Your task to perform on an android device: open a bookmark in the chrome app Image 0: 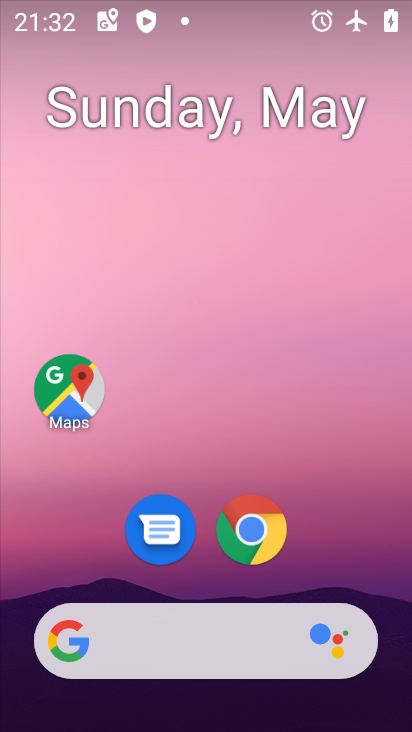
Step 0: click (255, 533)
Your task to perform on an android device: open a bookmark in the chrome app Image 1: 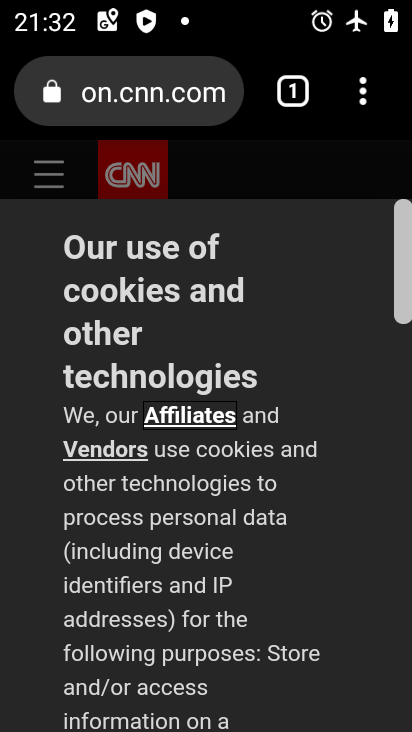
Step 1: click (362, 95)
Your task to perform on an android device: open a bookmark in the chrome app Image 2: 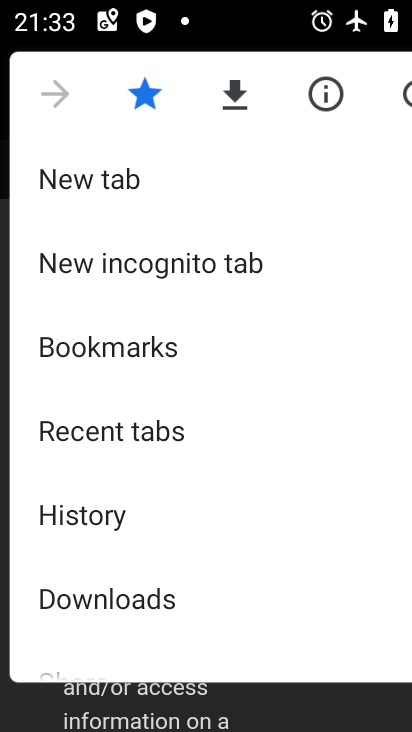
Step 2: click (87, 353)
Your task to perform on an android device: open a bookmark in the chrome app Image 3: 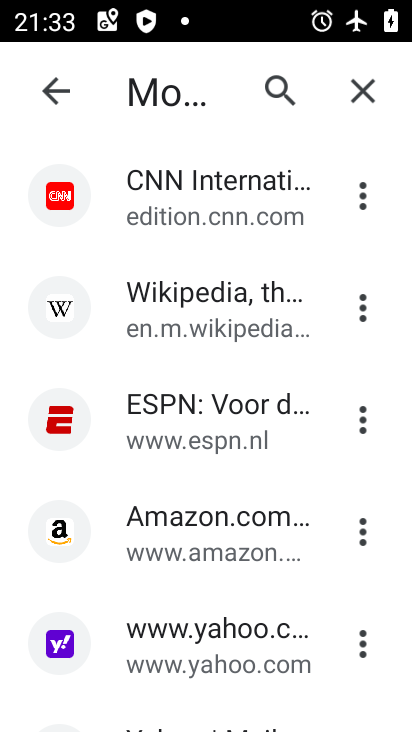
Step 3: click (201, 533)
Your task to perform on an android device: open a bookmark in the chrome app Image 4: 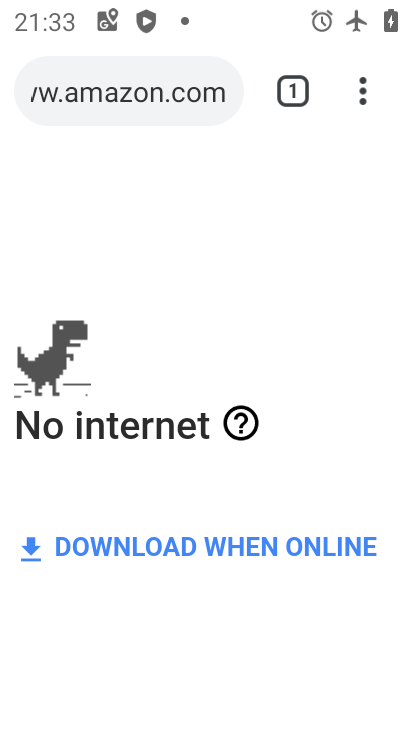
Step 4: task complete